Your task to perform on an android device: check battery use Image 0: 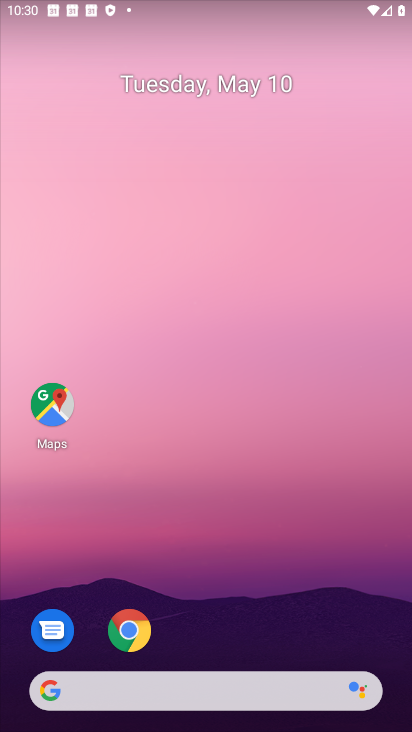
Step 0: drag from (285, 726) to (282, 0)
Your task to perform on an android device: check battery use Image 1: 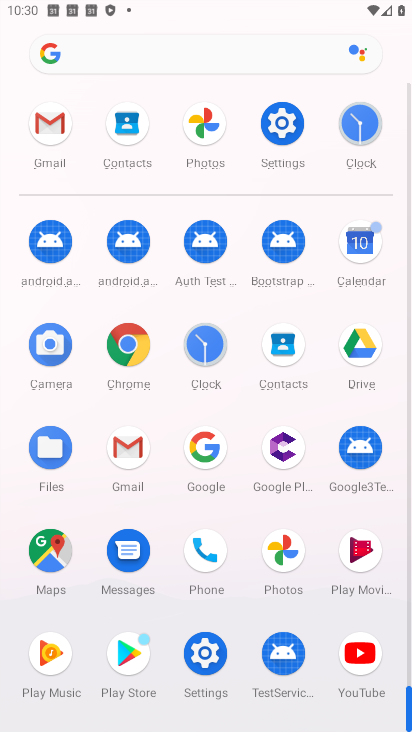
Step 1: click (289, 112)
Your task to perform on an android device: check battery use Image 2: 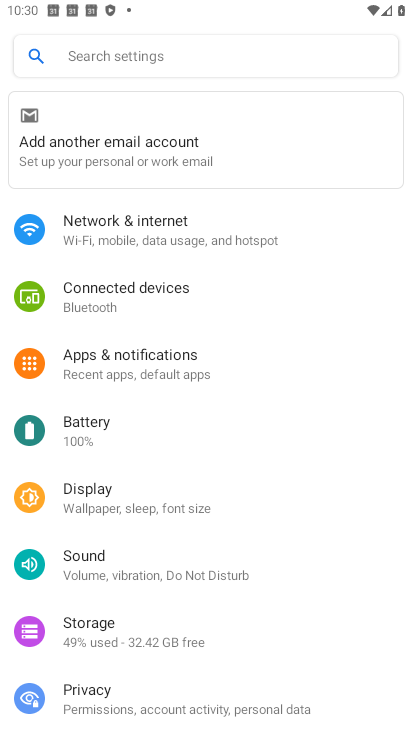
Step 2: click (84, 445)
Your task to perform on an android device: check battery use Image 3: 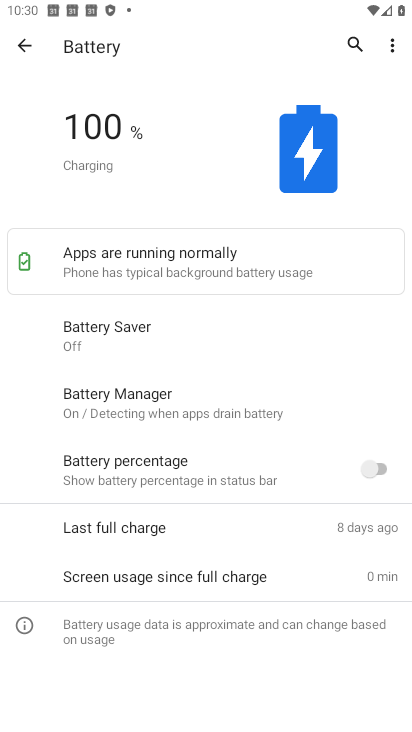
Step 3: click (401, 38)
Your task to perform on an android device: check battery use Image 4: 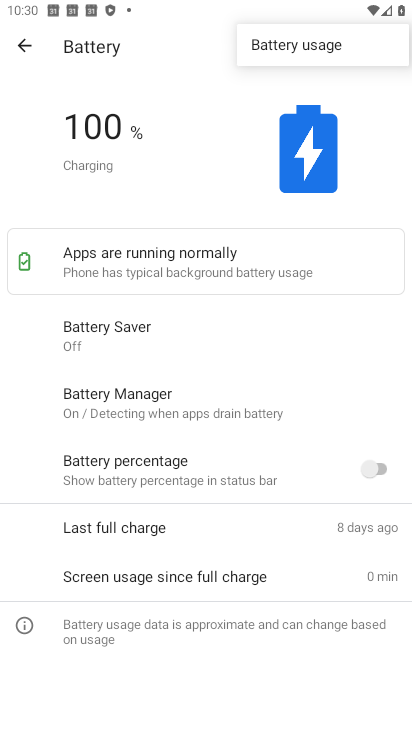
Step 4: click (314, 49)
Your task to perform on an android device: check battery use Image 5: 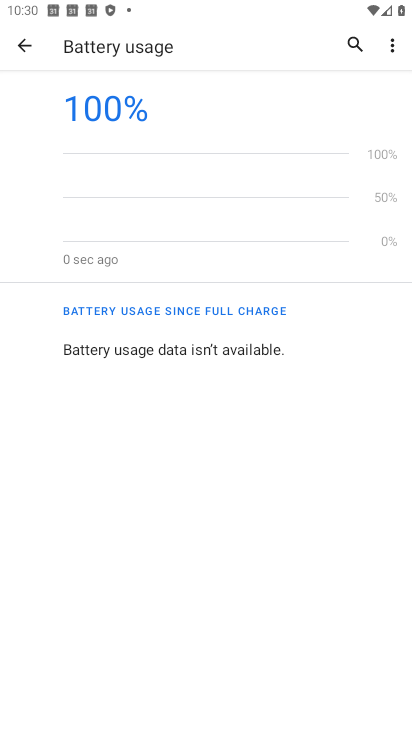
Step 5: task complete